Your task to perform on an android device: allow notifications from all sites in the chrome app Image 0: 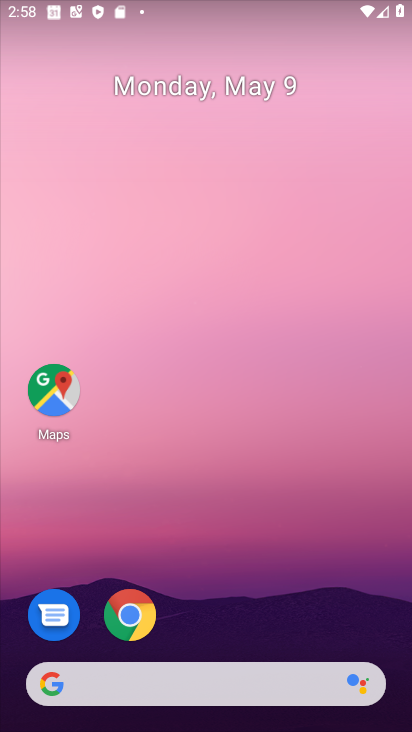
Step 0: drag from (206, 553) to (193, 124)
Your task to perform on an android device: allow notifications from all sites in the chrome app Image 1: 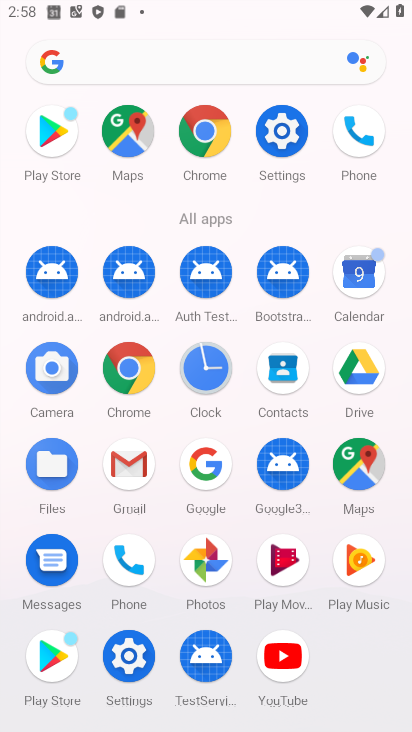
Step 1: click (265, 143)
Your task to perform on an android device: allow notifications from all sites in the chrome app Image 2: 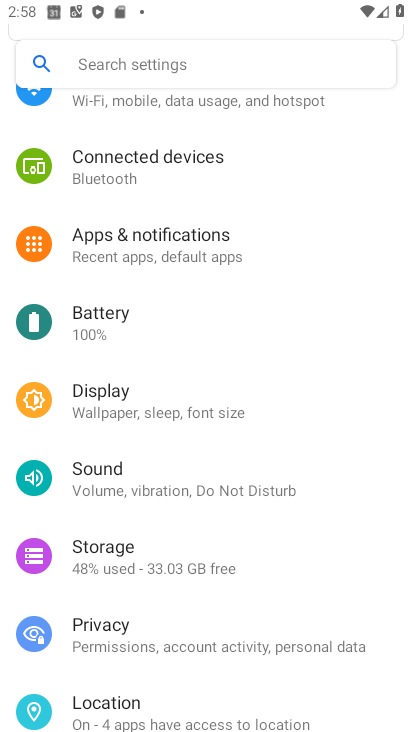
Step 2: press home button
Your task to perform on an android device: allow notifications from all sites in the chrome app Image 3: 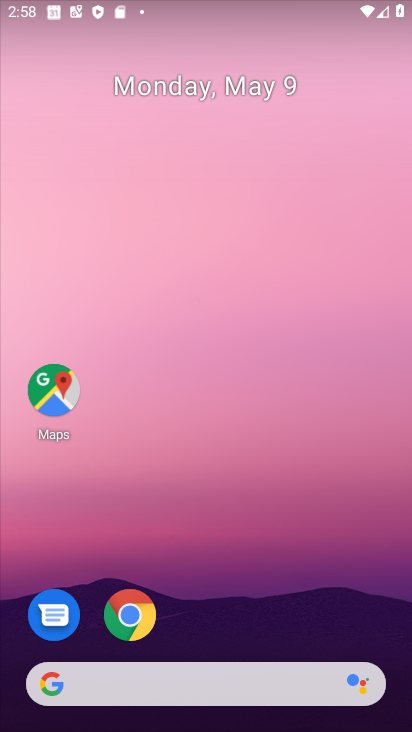
Step 3: drag from (200, 520) to (206, 328)
Your task to perform on an android device: allow notifications from all sites in the chrome app Image 4: 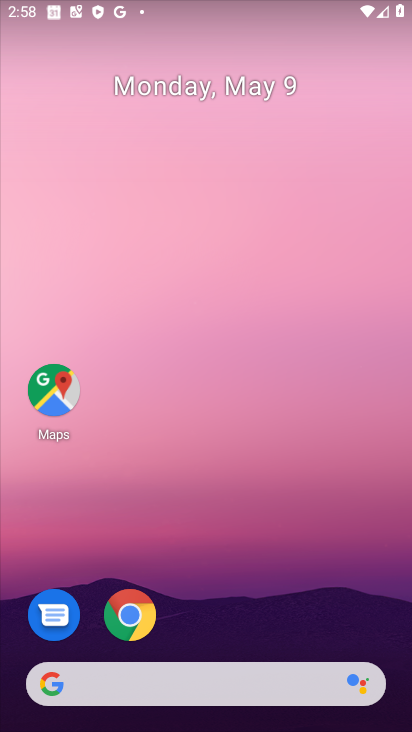
Step 4: drag from (209, 560) to (205, 257)
Your task to perform on an android device: allow notifications from all sites in the chrome app Image 5: 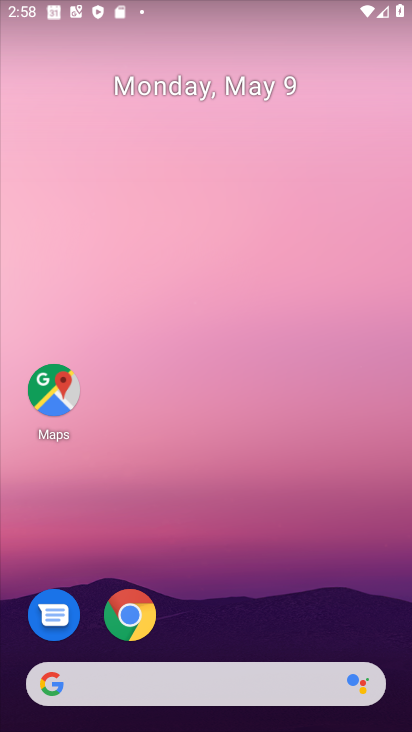
Step 5: drag from (230, 461) to (249, 155)
Your task to perform on an android device: allow notifications from all sites in the chrome app Image 6: 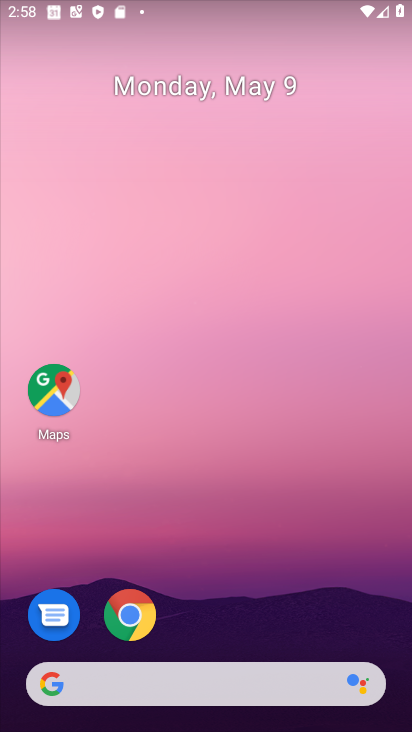
Step 6: drag from (207, 514) to (179, 264)
Your task to perform on an android device: allow notifications from all sites in the chrome app Image 7: 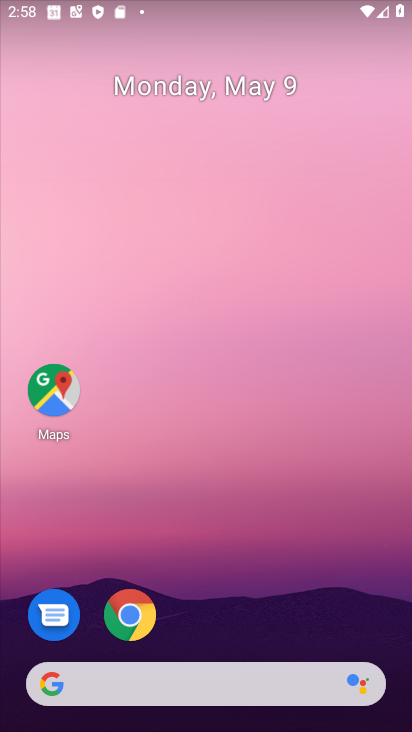
Step 7: drag from (253, 482) to (241, 142)
Your task to perform on an android device: allow notifications from all sites in the chrome app Image 8: 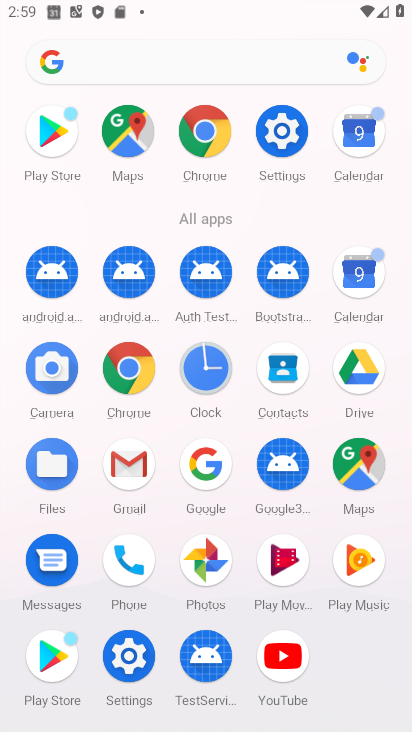
Step 8: click (115, 366)
Your task to perform on an android device: allow notifications from all sites in the chrome app Image 9: 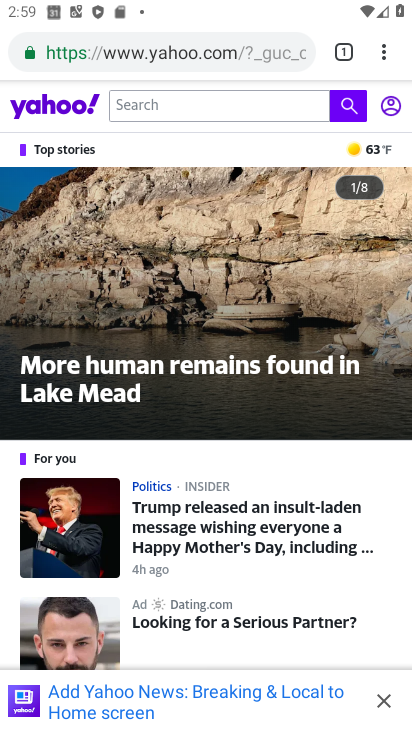
Step 9: click (378, 50)
Your task to perform on an android device: allow notifications from all sites in the chrome app Image 10: 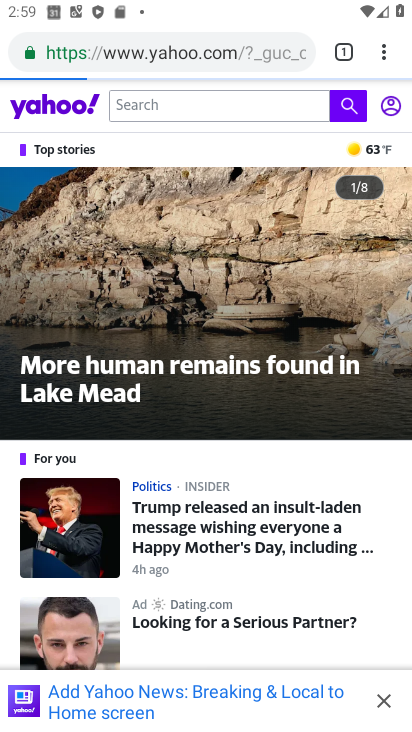
Step 10: click (377, 50)
Your task to perform on an android device: allow notifications from all sites in the chrome app Image 11: 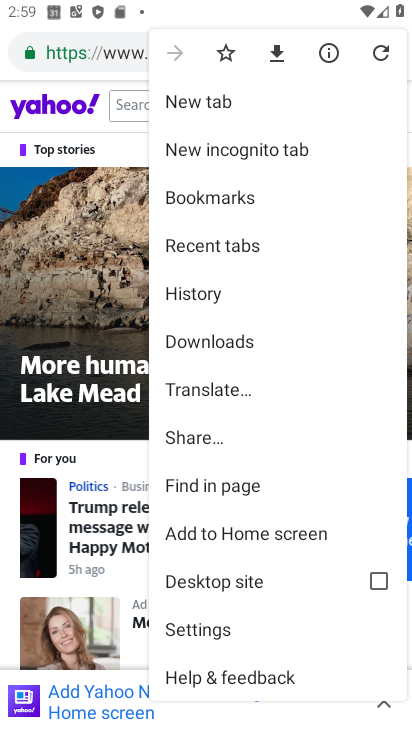
Step 11: click (229, 636)
Your task to perform on an android device: allow notifications from all sites in the chrome app Image 12: 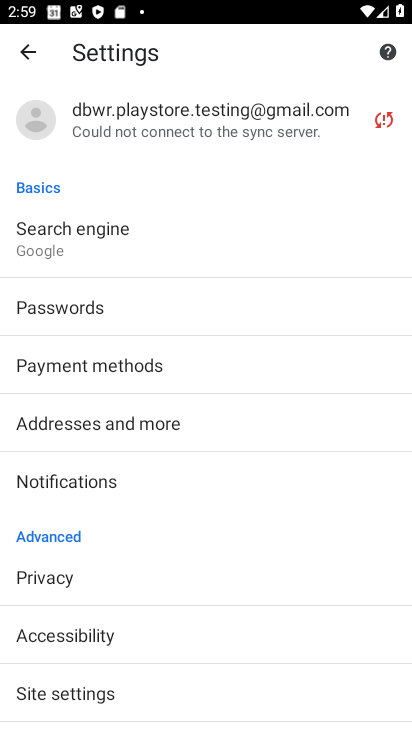
Step 12: drag from (118, 635) to (125, 397)
Your task to perform on an android device: allow notifications from all sites in the chrome app Image 13: 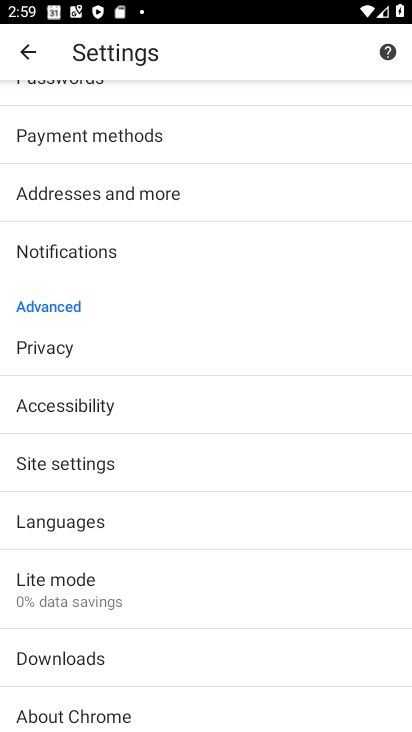
Step 13: click (90, 456)
Your task to perform on an android device: allow notifications from all sites in the chrome app Image 14: 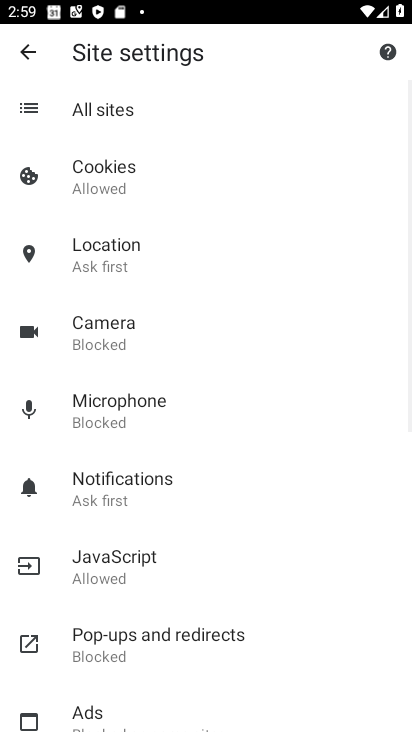
Step 14: click (113, 170)
Your task to perform on an android device: allow notifications from all sites in the chrome app Image 15: 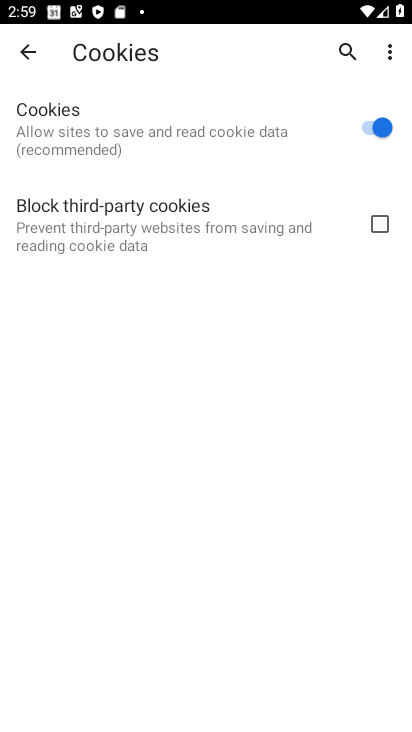
Step 15: press back button
Your task to perform on an android device: allow notifications from all sites in the chrome app Image 16: 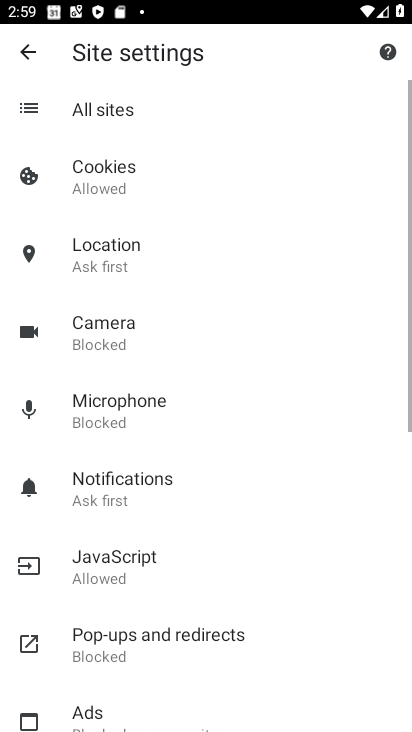
Step 16: click (126, 263)
Your task to perform on an android device: allow notifications from all sites in the chrome app Image 17: 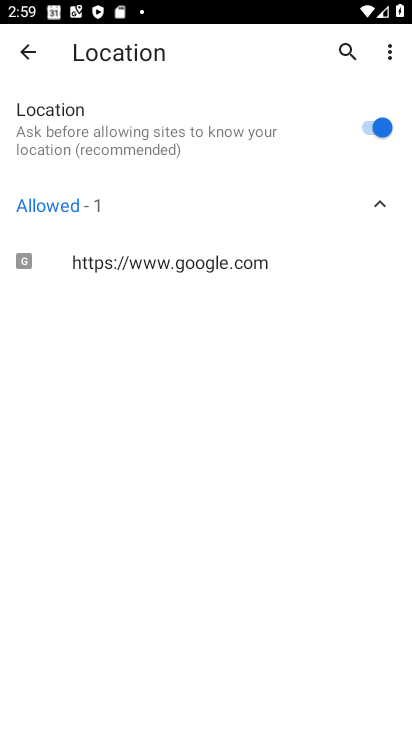
Step 17: press back button
Your task to perform on an android device: allow notifications from all sites in the chrome app Image 18: 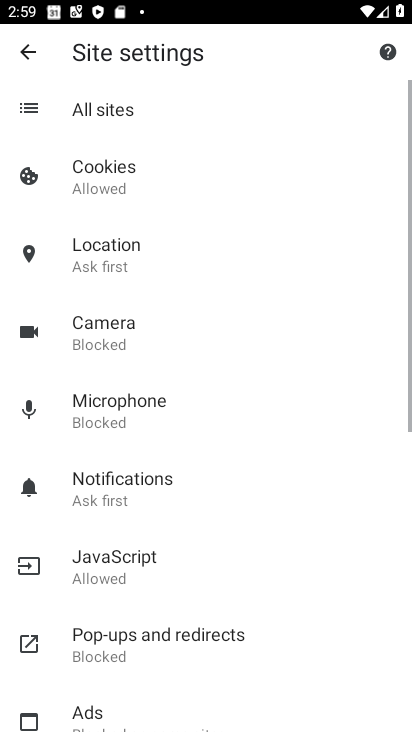
Step 18: click (156, 425)
Your task to perform on an android device: allow notifications from all sites in the chrome app Image 19: 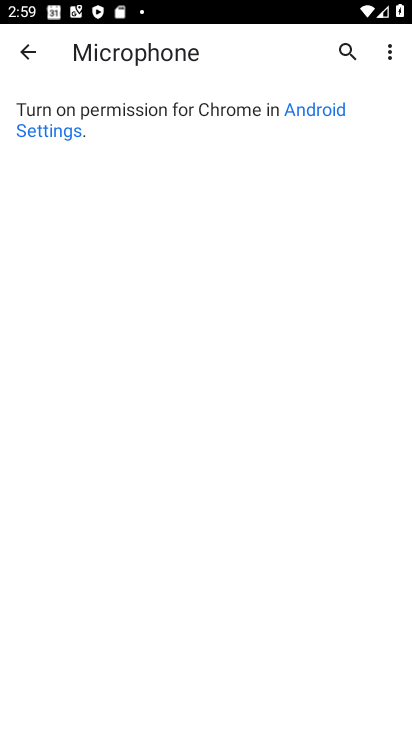
Step 19: press back button
Your task to perform on an android device: allow notifications from all sites in the chrome app Image 20: 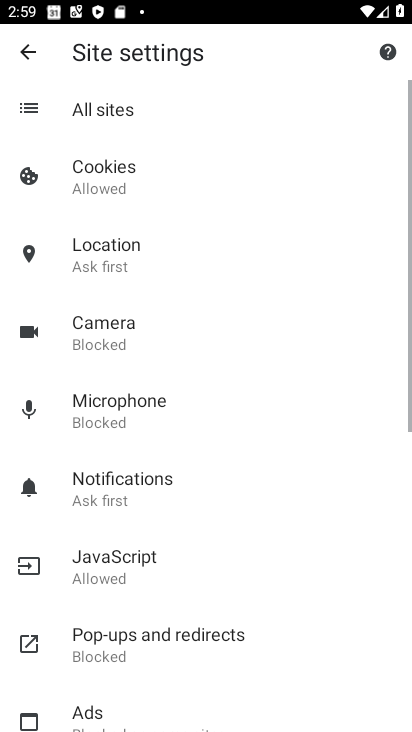
Step 20: click (126, 574)
Your task to perform on an android device: allow notifications from all sites in the chrome app Image 21: 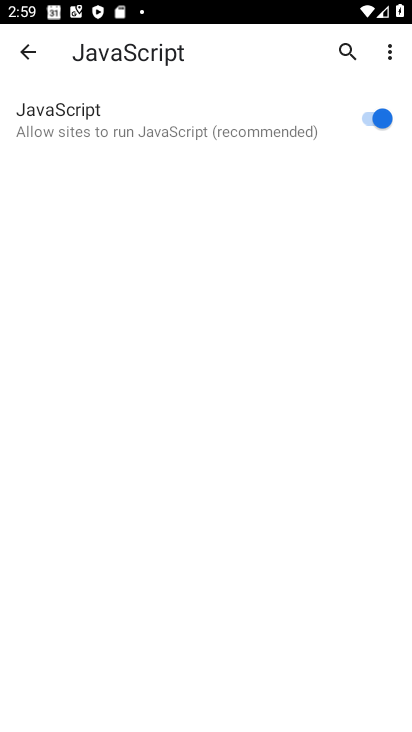
Step 21: press back button
Your task to perform on an android device: allow notifications from all sites in the chrome app Image 22: 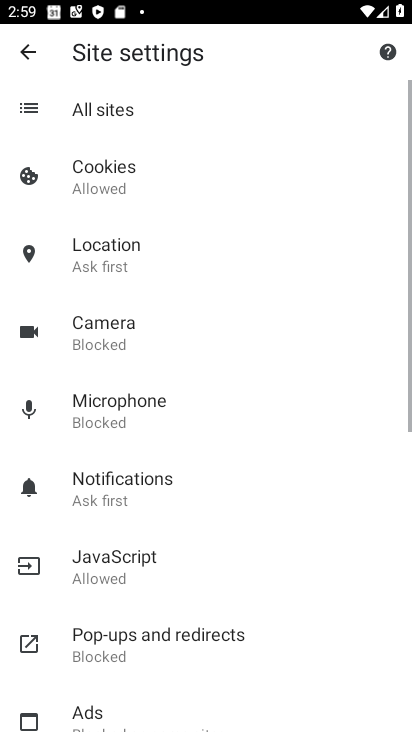
Step 22: click (176, 633)
Your task to perform on an android device: allow notifications from all sites in the chrome app Image 23: 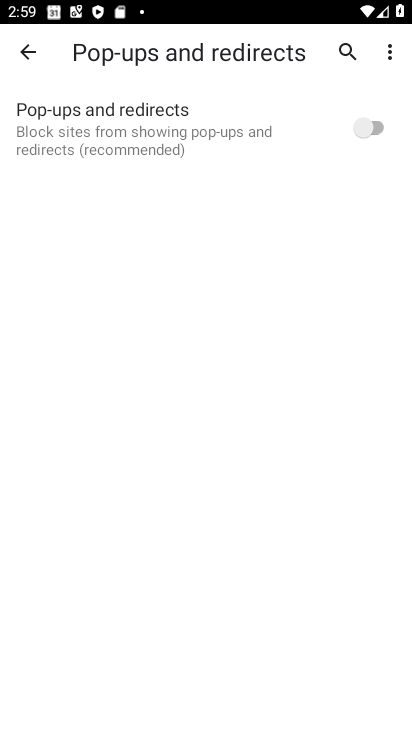
Step 23: click (365, 119)
Your task to perform on an android device: allow notifications from all sites in the chrome app Image 24: 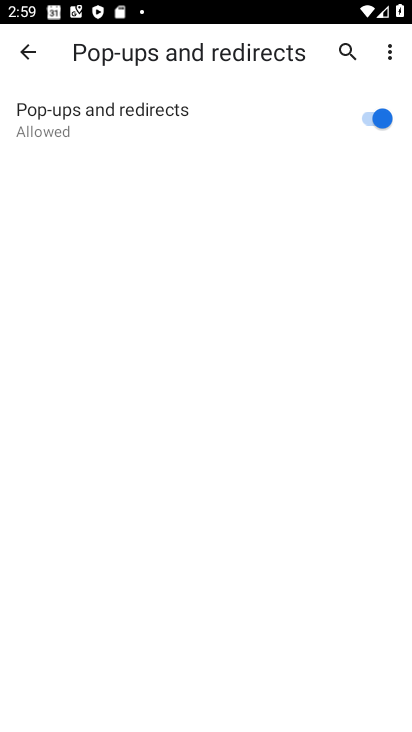
Step 24: task complete